Your task to perform on an android device: Go to sound settings Image 0: 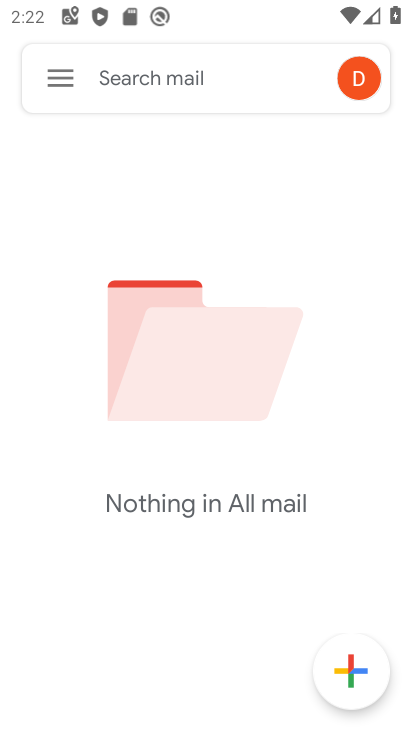
Step 0: press home button
Your task to perform on an android device: Go to sound settings Image 1: 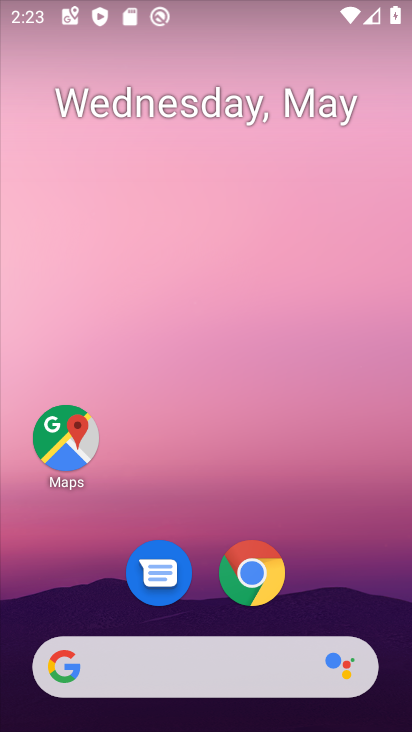
Step 1: drag from (323, 588) to (308, 25)
Your task to perform on an android device: Go to sound settings Image 2: 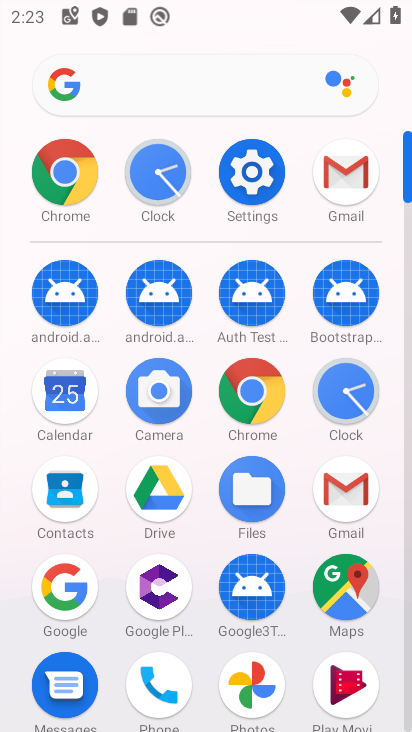
Step 2: click (254, 179)
Your task to perform on an android device: Go to sound settings Image 3: 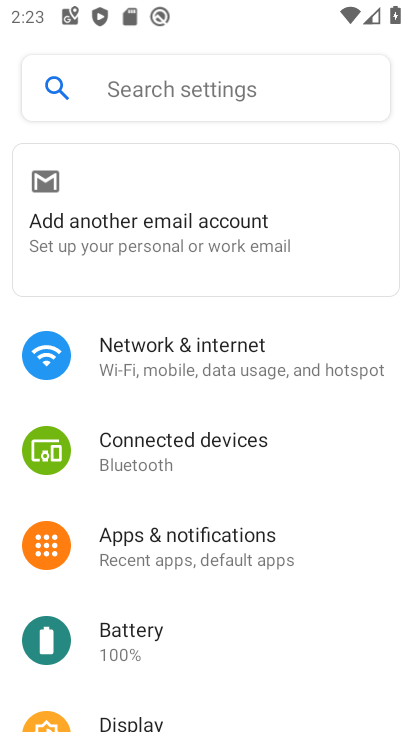
Step 3: drag from (174, 533) to (199, 216)
Your task to perform on an android device: Go to sound settings Image 4: 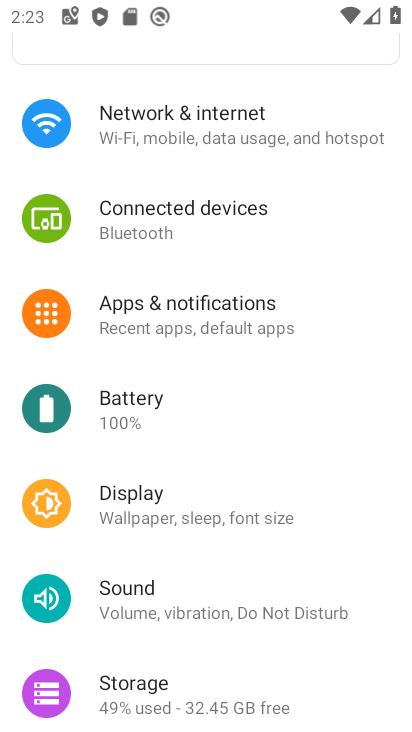
Step 4: click (170, 608)
Your task to perform on an android device: Go to sound settings Image 5: 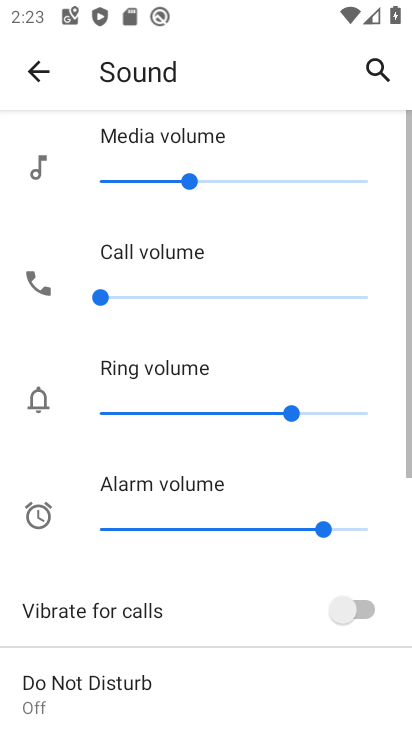
Step 5: task complete